Your task to perform on an android device: Open the stopwatch Image 0: 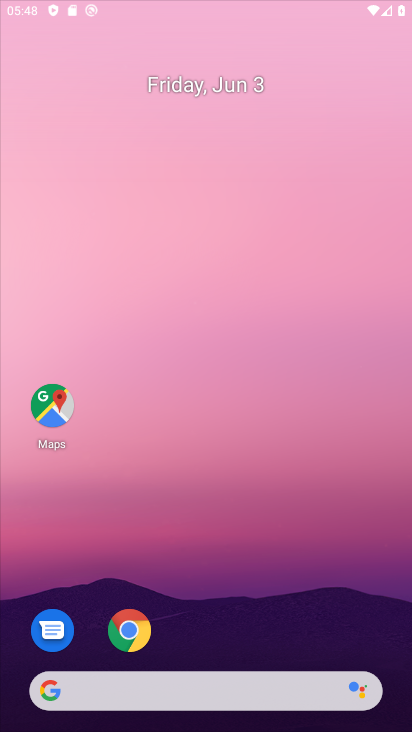
Step 0: click (295, 440)
Your task to perform on an android device: Open the stopwatch Image 1: 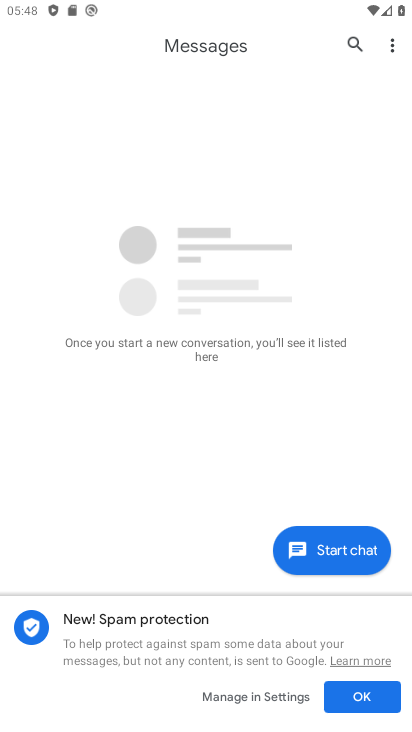
Step 1: drag from (286, 6) to (287, 226)
Your task to perform on an android device: Open the stopwatch Image 2: 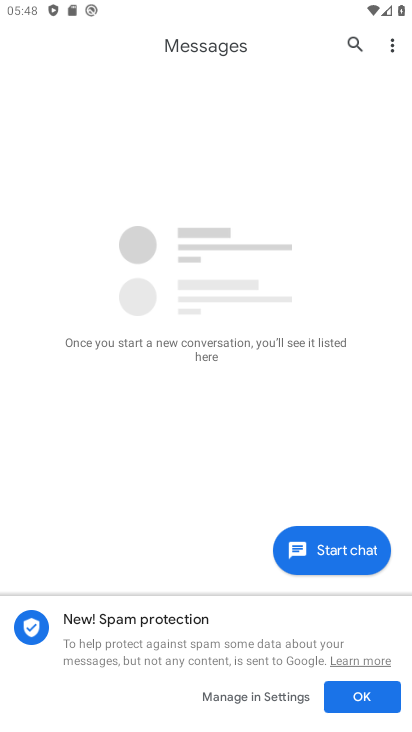
Step 2: drag from (290, 3) to (271, 397)
Your task to perform on an android device: Open the stopwatch Image 3: 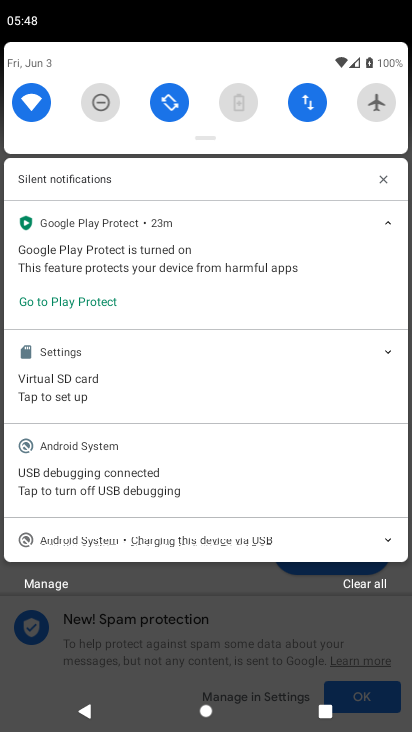
Step 3: drag from (276, 63) to (274, 278)
Your task to perform on an android device: Open the stopwatch Image 4: 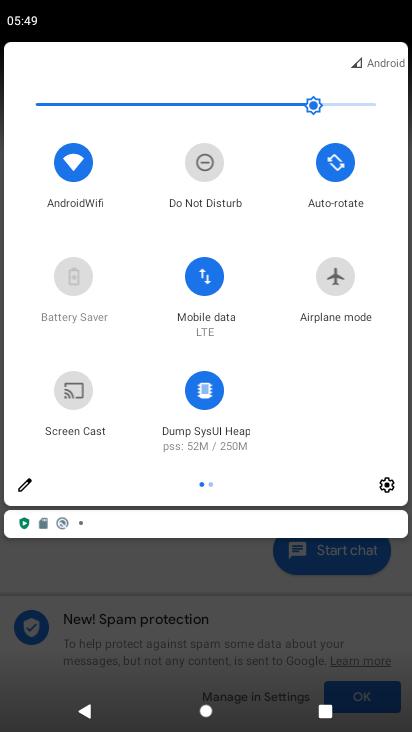
Step 4: click (386, 483)
Your task to perform on an android device: Open the stopwatch Image 5: 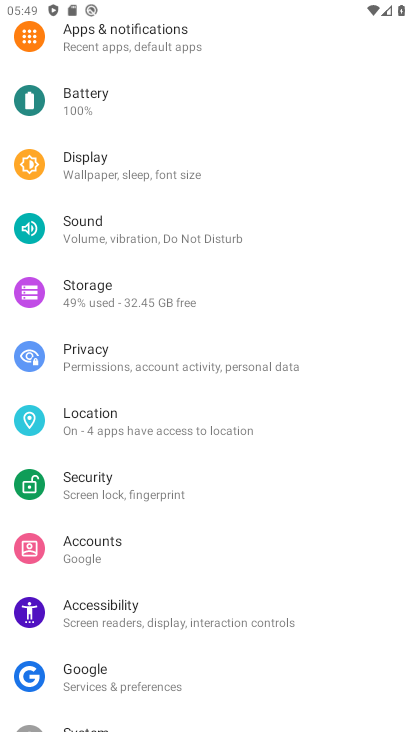
Step 5: press home button
Your task to perform on an android device: Open the stopwatch Image 6: 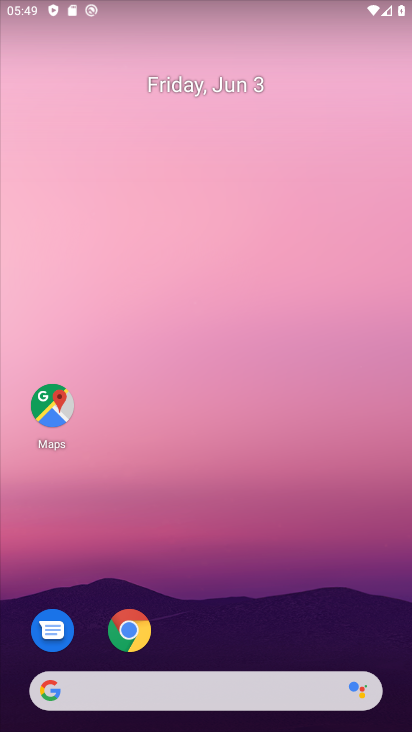
Step 6: drag from (208, 638) to (279, 151)
Your task to perform on an android device: Open the stopwatch Image 7: 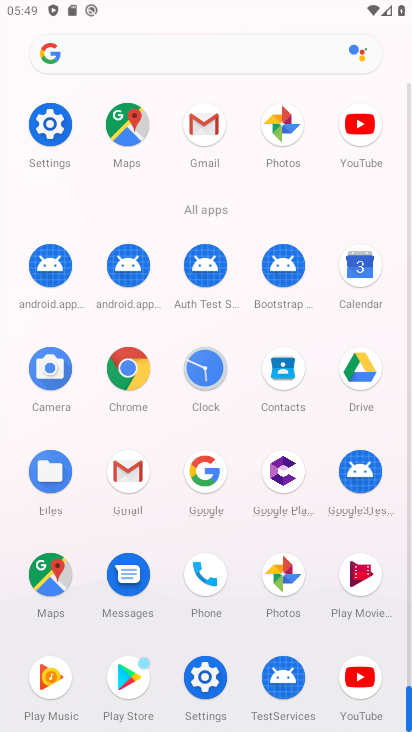
Step 7: click (205, 368)
Your task to perform on an android device: Open the stopwatch Image 8: 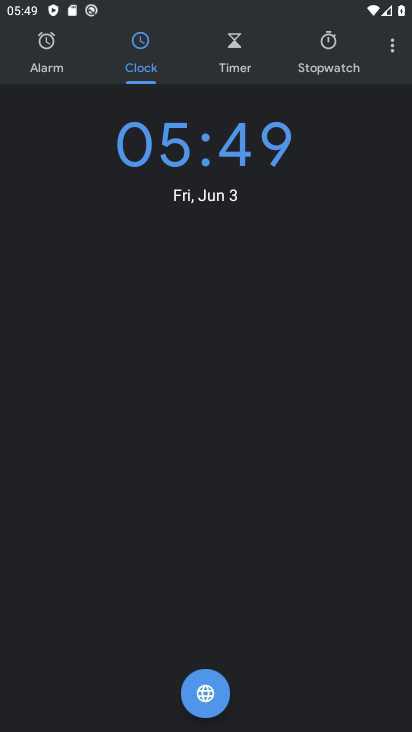
Step 8: click (341, 65)
Your task to perform on an android device: Open the stopwatch Image 9: 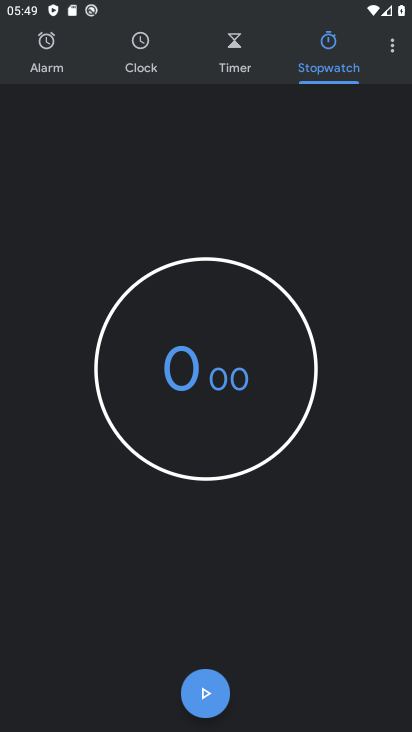
Step 9: task complete